Your task to perform on an android device: toggle show notifications on the lock screen Image 0: 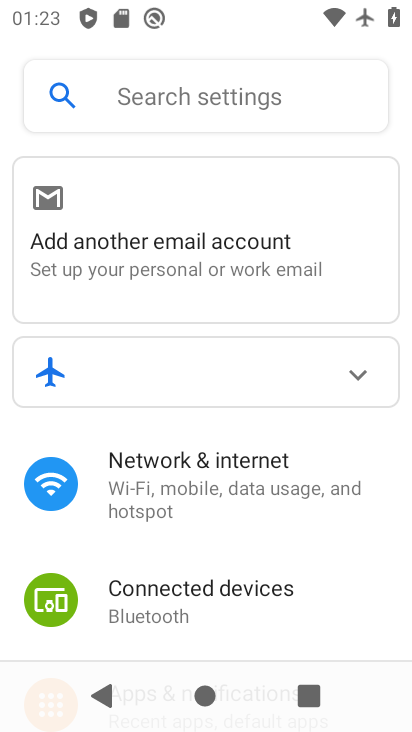
Step 0: drag from (246, 554) to (252, 190)
Your task to perform on an android device: toggle show notifications on the lock screen Image 1: 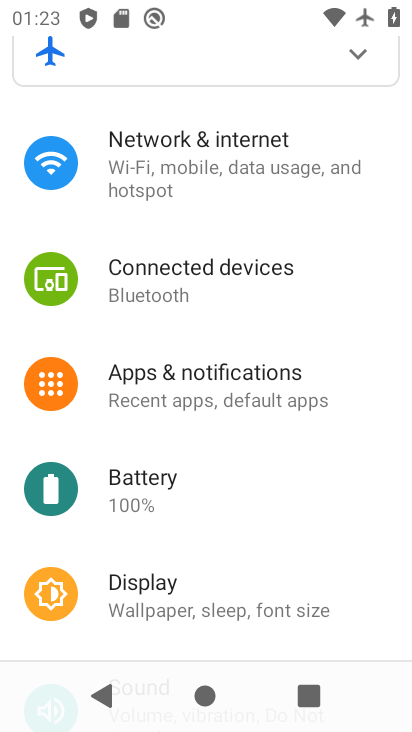
Step 1: click (183, 401)
Your task to perform on an android device: toggle show notifications on the lock screen Image 2: 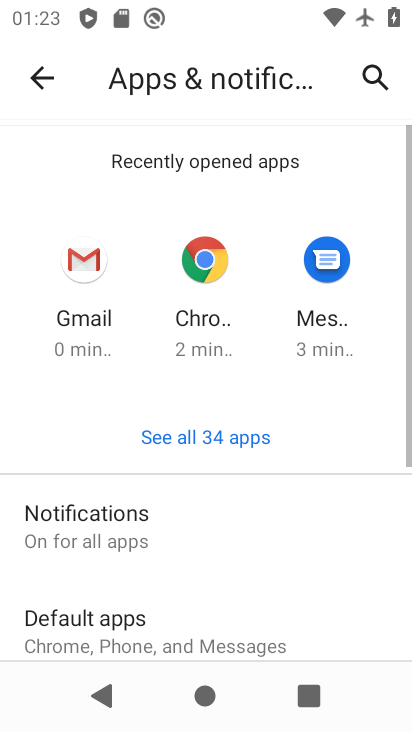
Step 2: click (181, 517)
Your task to perform on an android device: toggle show notifications on the lock screen Image 3: 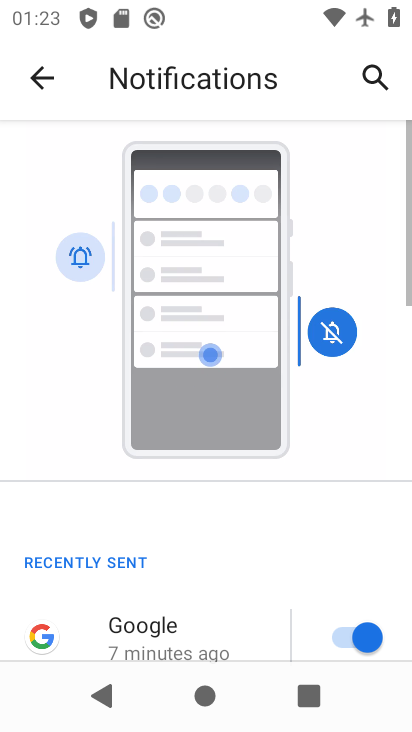
Step 3: drag from (262, 561) to (262, 160)
Your task to perform on an android device: toggle show notifications on the lock screen Image 4: 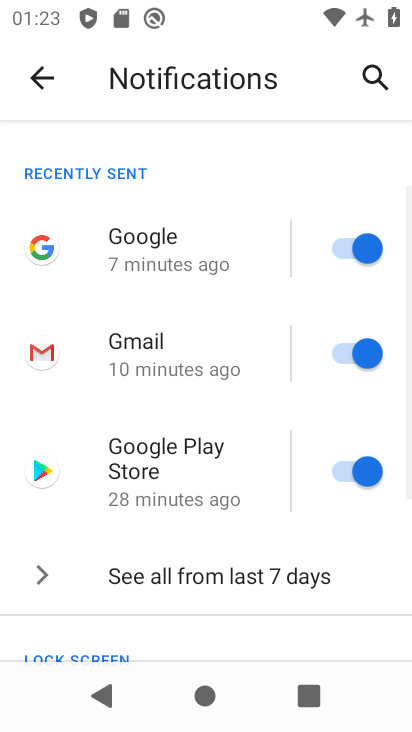
Step 4: drag from (205, 552) to (214, 150)
Your task to perform on an android device: toggle show notifications on the lock screen Image 5: 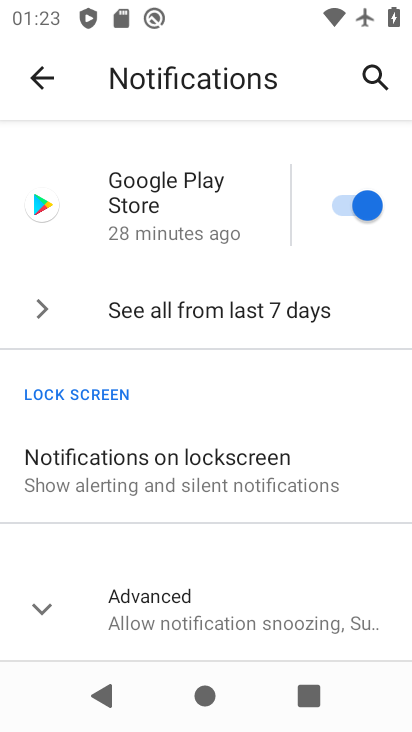
Step 5: click (65, 604)
Your task to perform on an android device: toggle show notifications on the lock screen Image 6: 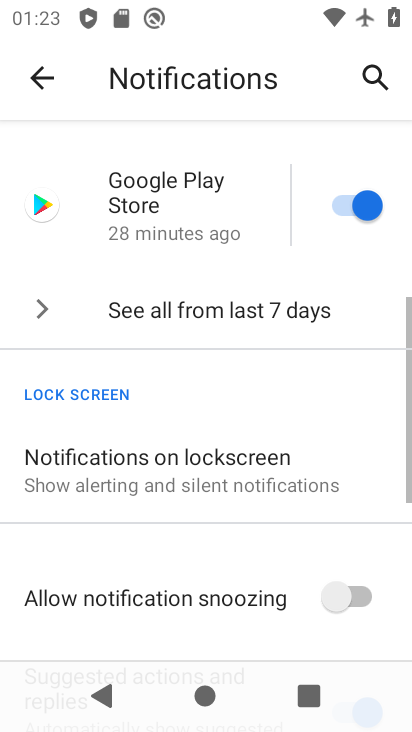
Step 6: drag from (201, 584) to (205, 173)
Your task to perform on an android device: toggle show notifications on the lock screen Image 7: 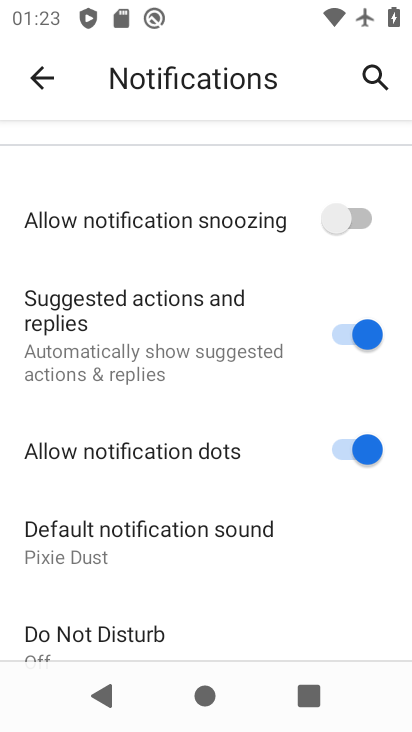
Step 7: drag from (205, 219) to (175, 529)
Your task to perform on an android device: toggle show notifications on the lock screen Image 8: 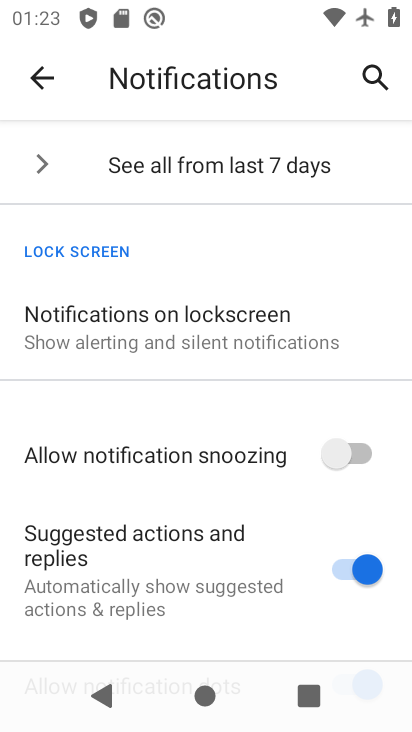
Step 8: click (168, 308)
Your task to perform on an android device: toggle show notifications on the lock screen Image 9: 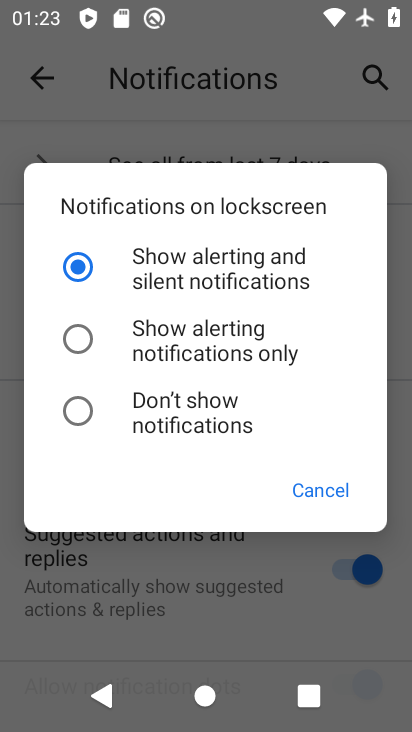
Step 9: click (180, 270)
Your task to perform on an android device: toggle show notifications on the lock screen Image 10: 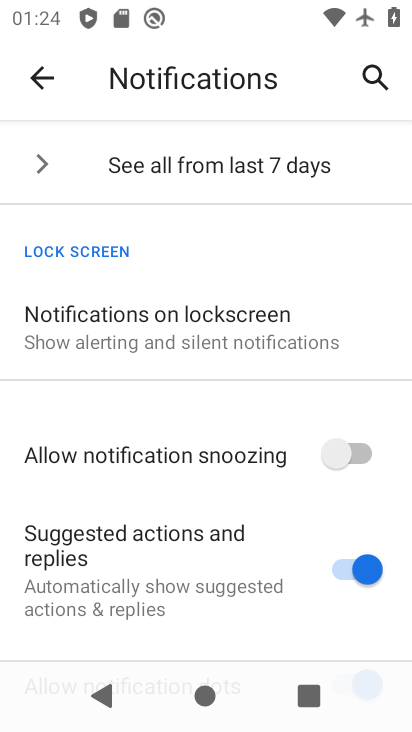
Step 10: task complete